Your task to perform on an android device: check battery use Image 0: 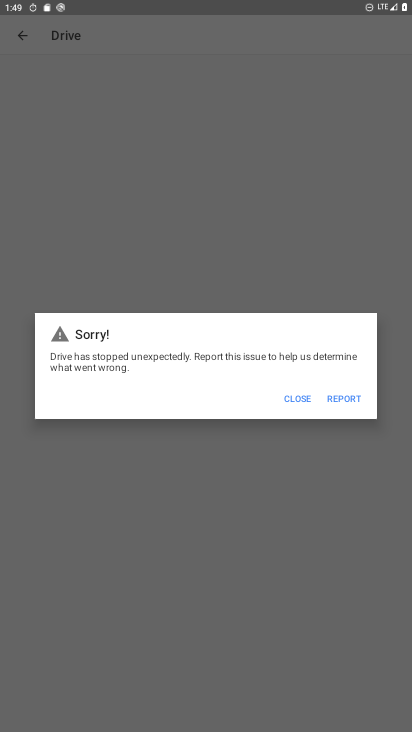
Step 0: press home button
Your task to perform on an android device: check battery use Image 1: 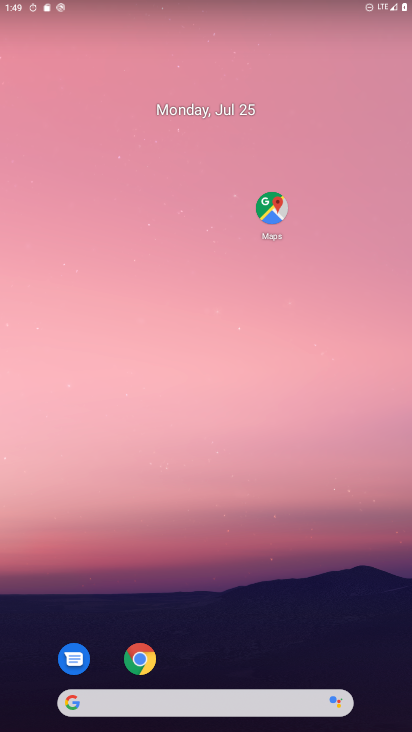
Step 1: drag from (15, 699) to (179, 300)
Your task to perform on an android device: check battery use Image 2: 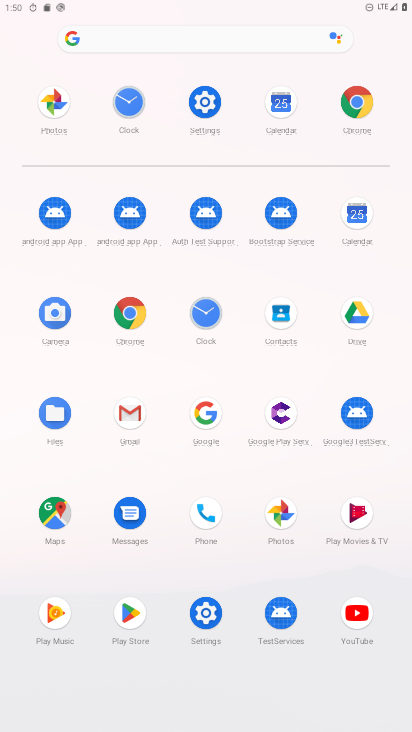
Step 2: click (204, 634)
Your task to perform on an android device: check battery use Image 3: 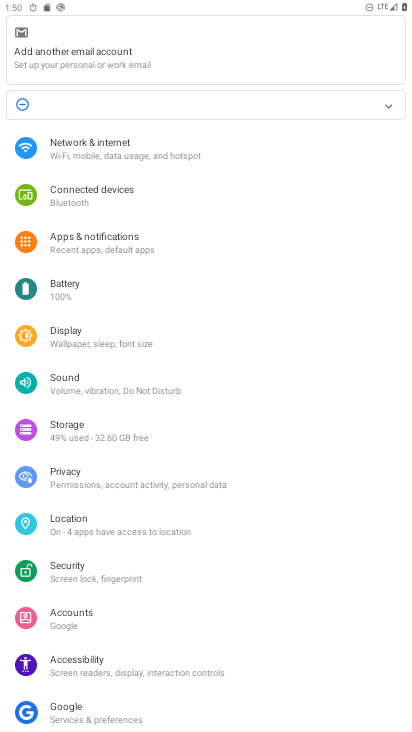
Step 3: click (106, 293)
Your task to perform on an android device: check battery use Image 4: 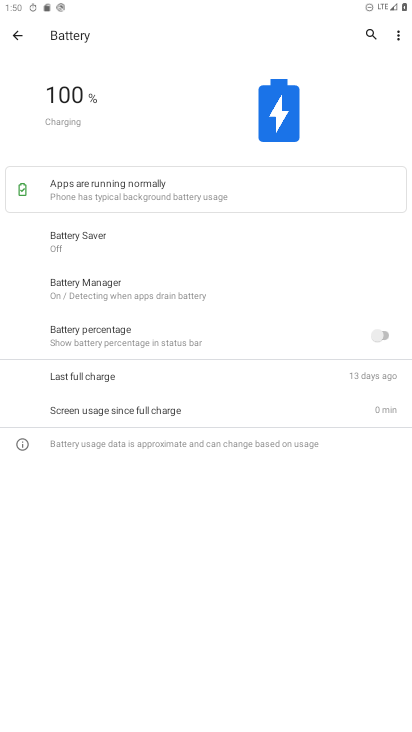
Step 4: task complete